Your task to perform on an android device: Clear all items from cart on target.com. Search for "razer blade" on target.com, select the first entry, add it to the cart, then select checkout. Image 0: 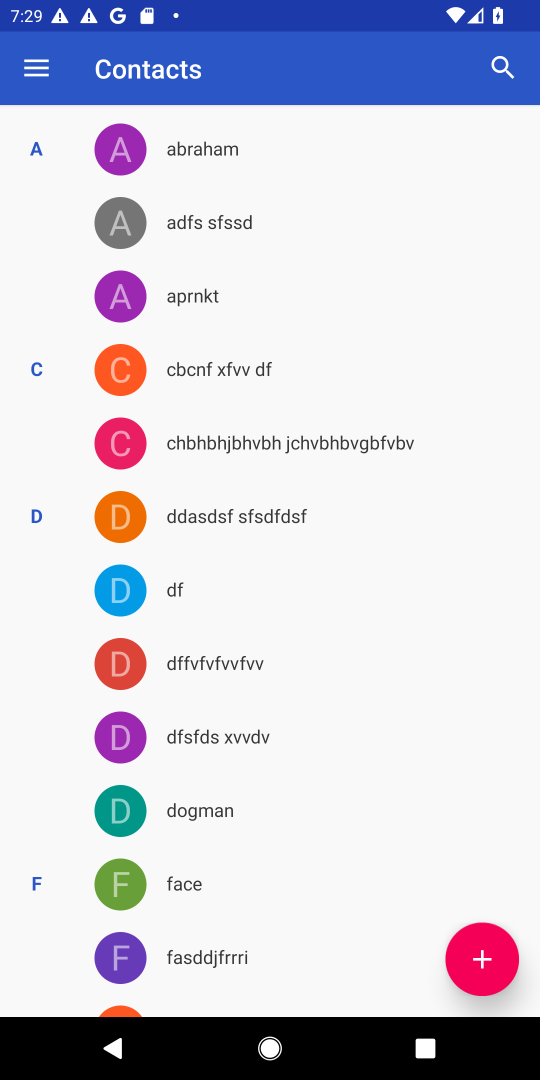
Step 0: press home button
Your task to perform on an android device: Clear all items from cart on target.com. Search for "razer blade" on target.com, select the first entry, add it to the cart, then select checkout. Image 1: 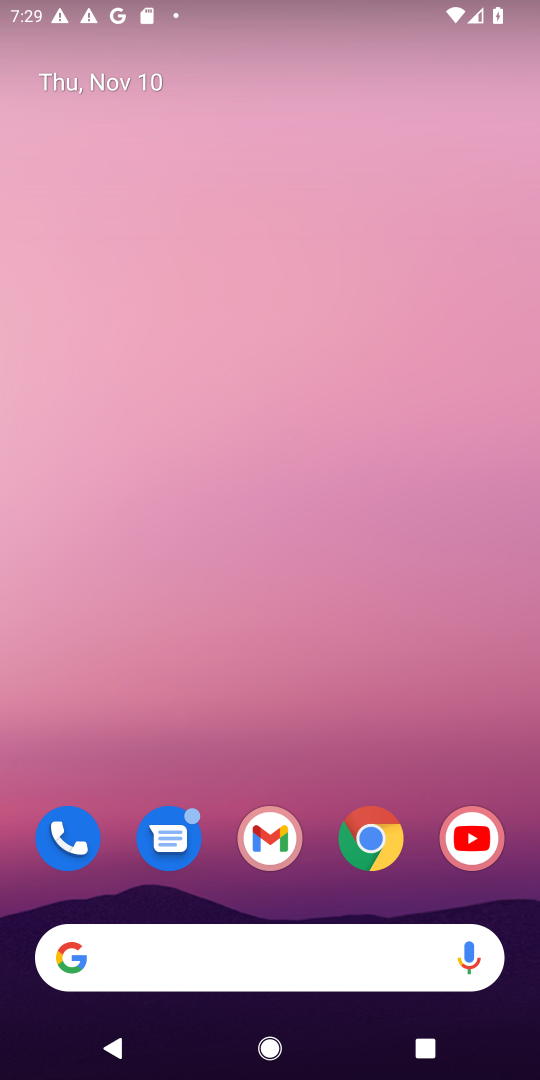
Step 1: drag from (314, 903) to (198, 43)
Your task to perform on an android device: Clear all items from cart on target.com. Search for "razer blade" on target.com, select the first entry, add it to the cart, then select checkout. Image 2: 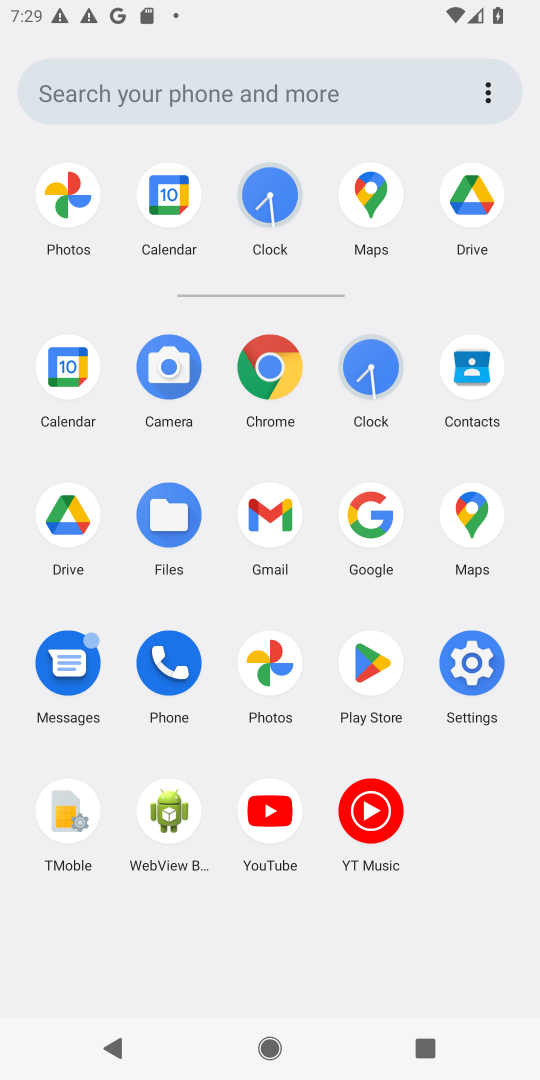
Step 2: click (255, 360)
Your task to perform on an android device: Clear all items from cart on target.com. Search for "razer blade" on target.com, select the first entry, add it to the cart, then select checkout. Image 3: 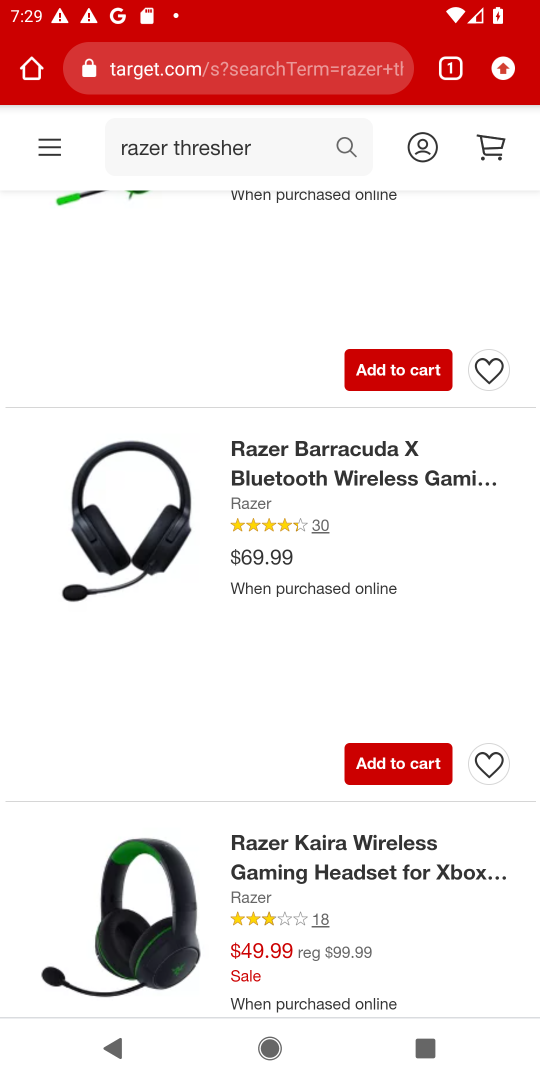
Step 3: click (264, 66)
Your task to perform on an android device: Clear all items from cart on target.com. Search for "razer blade" on target.com, select the first entry, add it to the cart, then select checkout. Image 4: 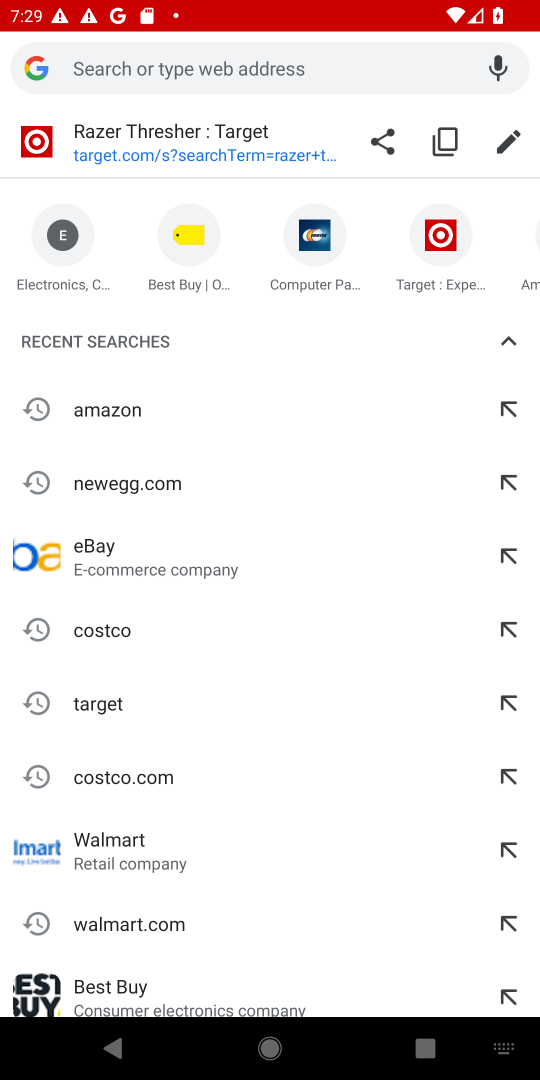
Step 4: type "target.com"
Your task to perform on an android device: Clear all items from cart on target.com. Search for "razer blade" on target.com, select the first entry, add it to the cart, then select checkout. Image 5: 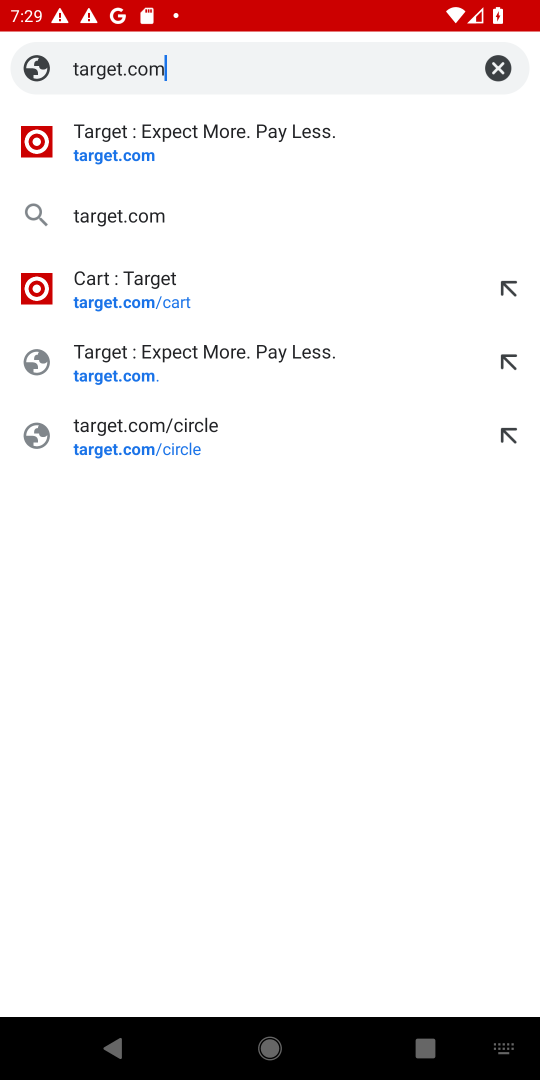
Step 5: press enter
Your task to perform on an android device: Clear all items from cart on target.com. Search for "razer blade" on target.com, select the first entry, add it to the cart, then select checkout. Image 6: 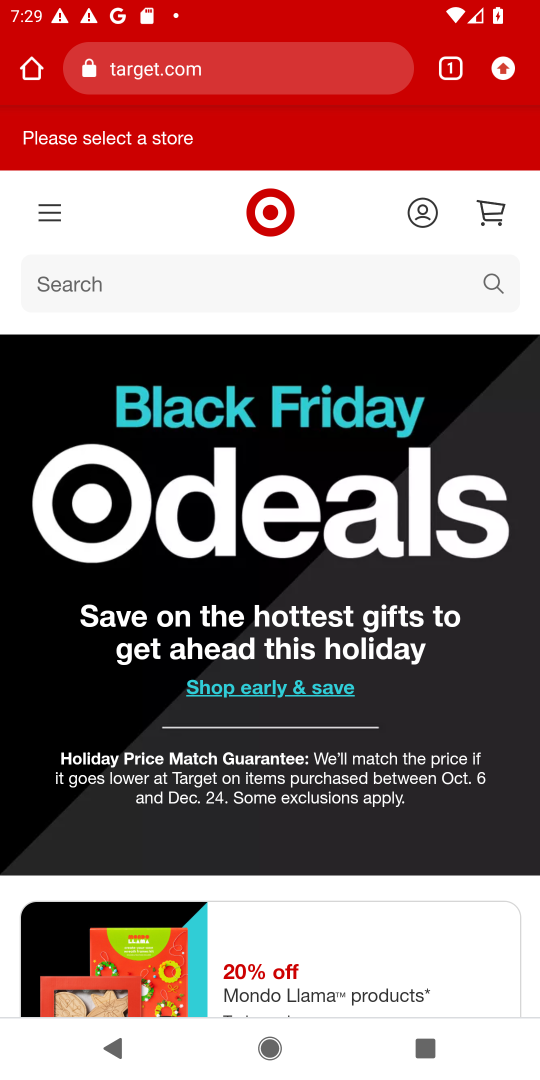
Step 6: click (505, 214)
Your task to perform on an android device: Clear all items from cart on target.com. Search for "razer blade" on target.com, select the first entry, add it to the cart, then select checkout. Image 7: 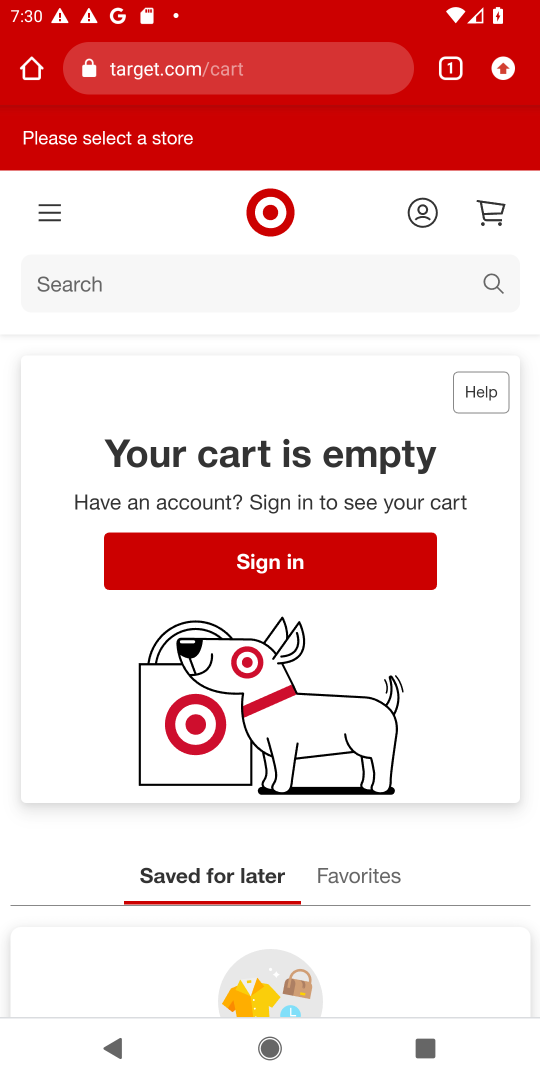
Step 7: click (214, 298)
Your task to perform on an android device: Clear all items from cart on target.com. Search for "razer blade" on target.com, select the first entry, add it to the cart, then select checkout. Image 8: 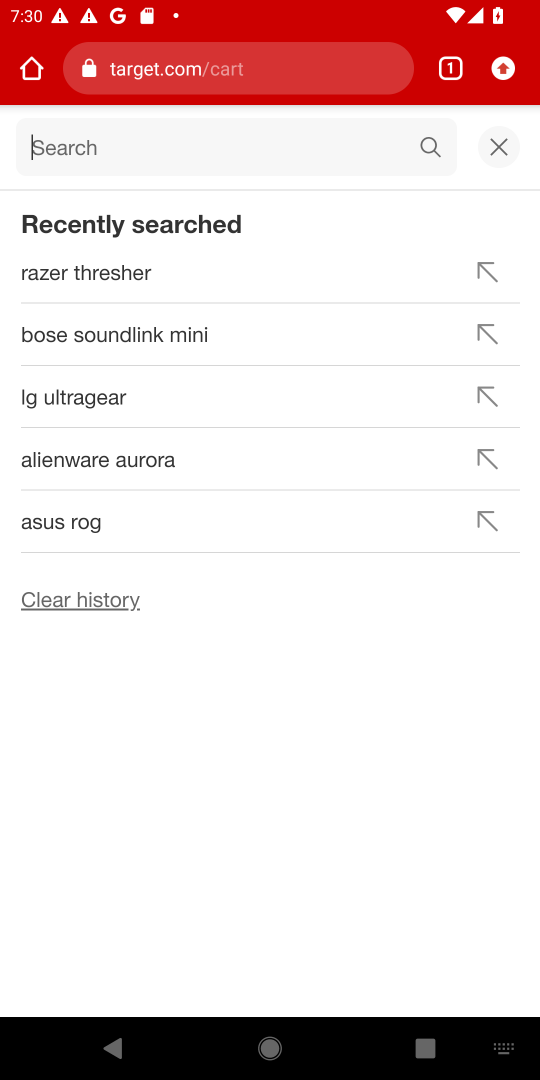
Step 8: type "razer blade"
Your task to perform on an android device: Clear all items from cart on target.com. Search for "razer blade" on target.com, select the first entry, add it to the cart, then select checkout. Image 9: 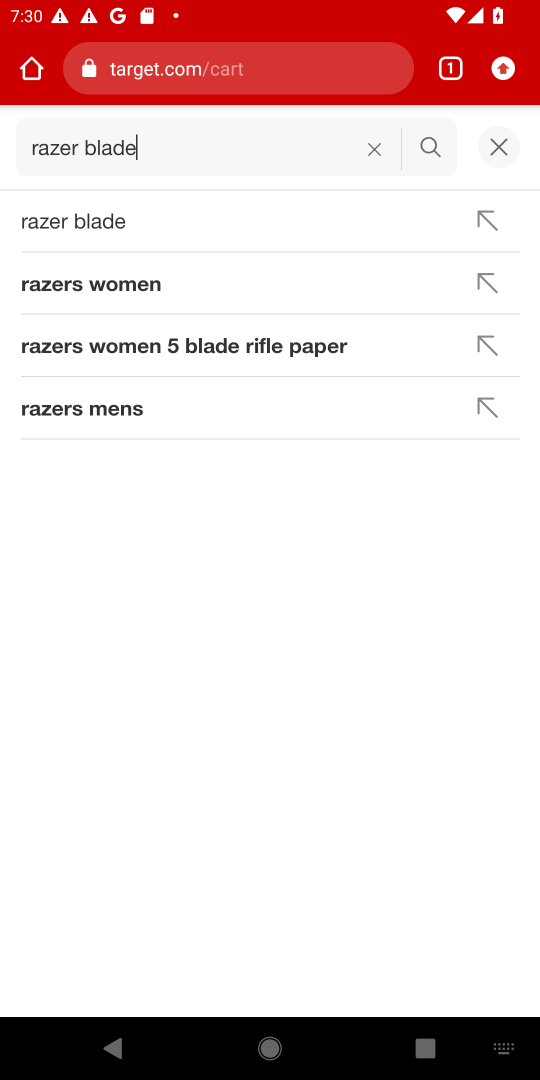
Step 9: press enter
Your task to perform on an android device: Clear all items from cart on target.com. Search for "razer blade" on target.com, select the first entry, add it to the cart, then select checkout. Image 10: 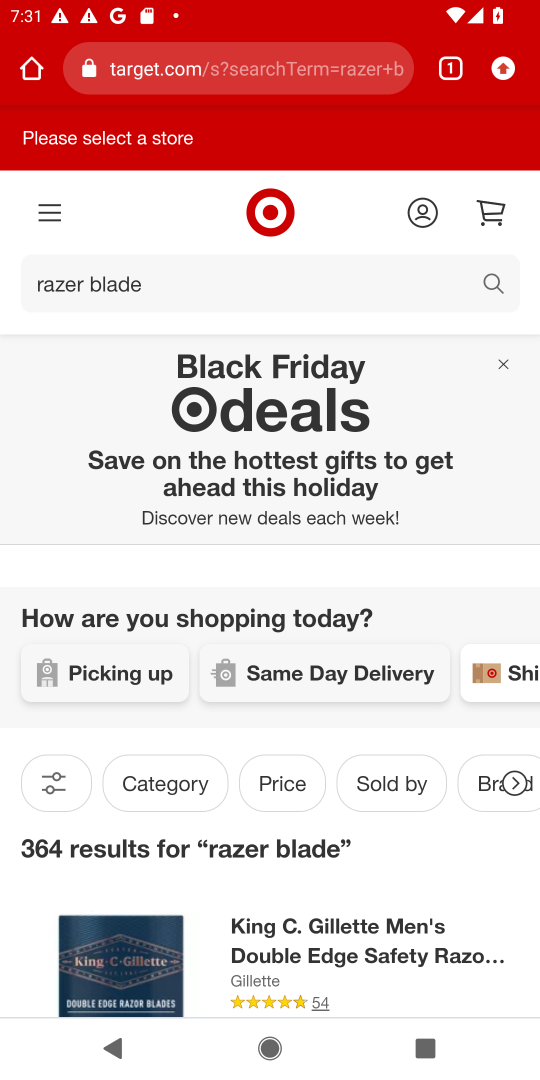
Step 10: task complete